Your task to perform on an android device: Do I have any events tomorrow? Image 0: 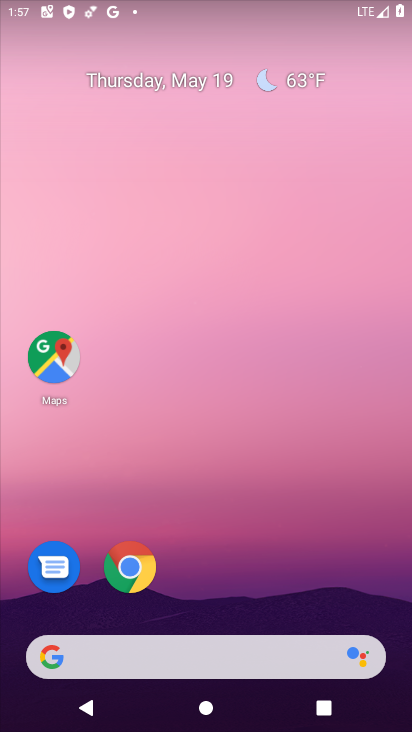
Step 0: drag from (376, 517) to (378, 106)
Your task to perform on an android device: Do I have any events tomorrow? Image 1: 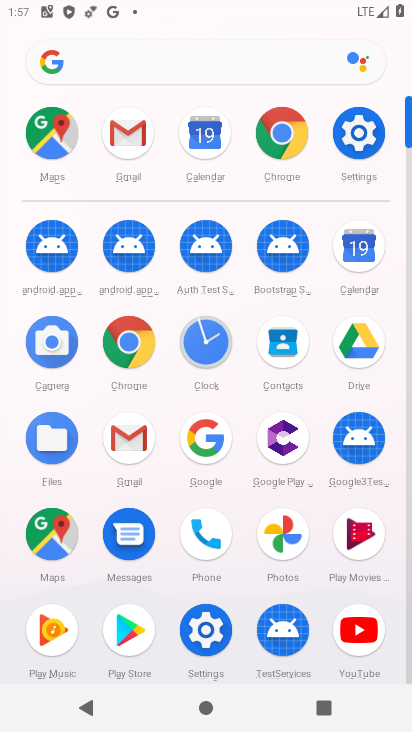
Step 1: click (350, 256)
Your task to perform on an android device: Do I have any events tomorrow? Image 2: 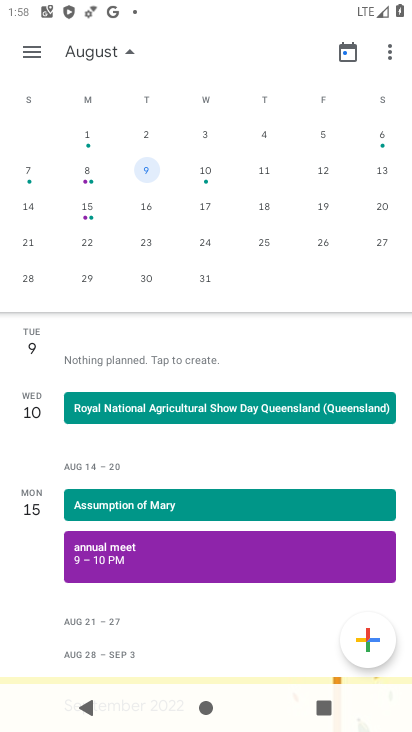
Step 2: click (219, 173)
Your task to perform on an android device: Do I have any events tomorrow? Image 3: 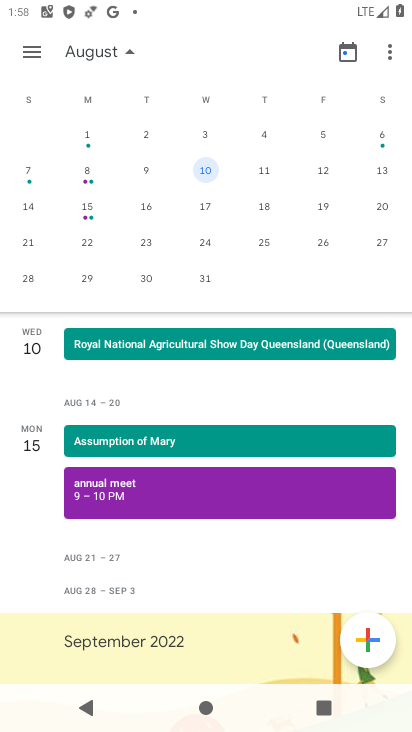
Step 3: task complete